Your task to perform on an android device: Go to Yahoo.com Image 0: 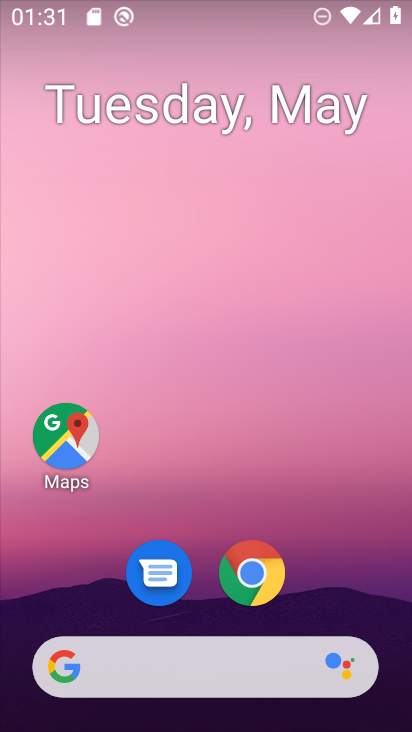
Step 0: click (246, 562)
Your task to perform on an android device: Go to Yahoo.com Image 1: 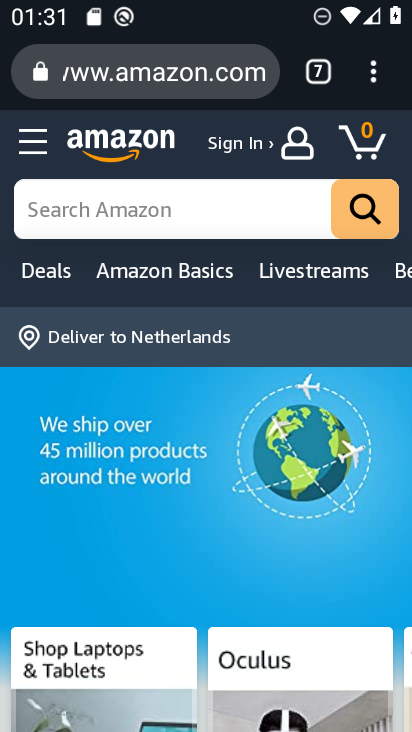
Step 1: click (325, 71)
Your task to perform on an android device: Go to Yahoo.com Image 2: 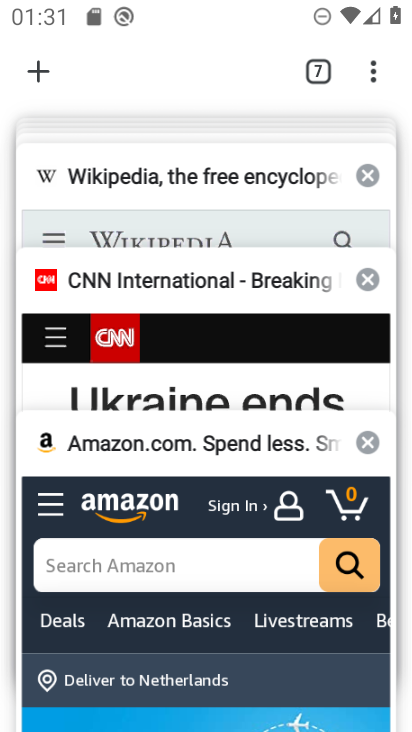
Step 2: drag from (210, 177) to (210, 643)
Your task to perform on an android device: Go to Yahoo.com Image 3: 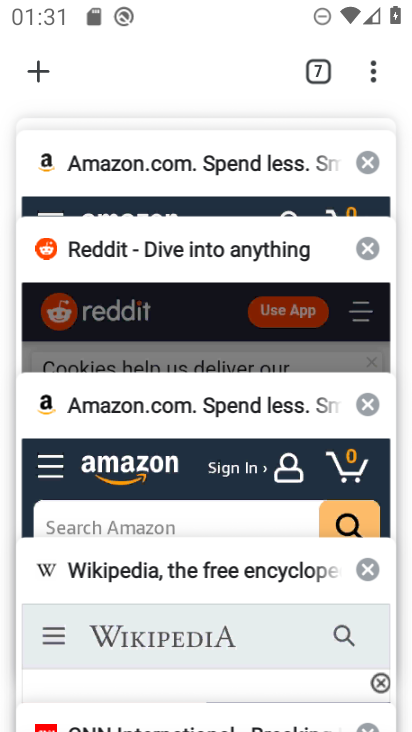
Step 3: click (45, 88)
Your task to perform on an android device: Go to Yahoo.com Image 4: 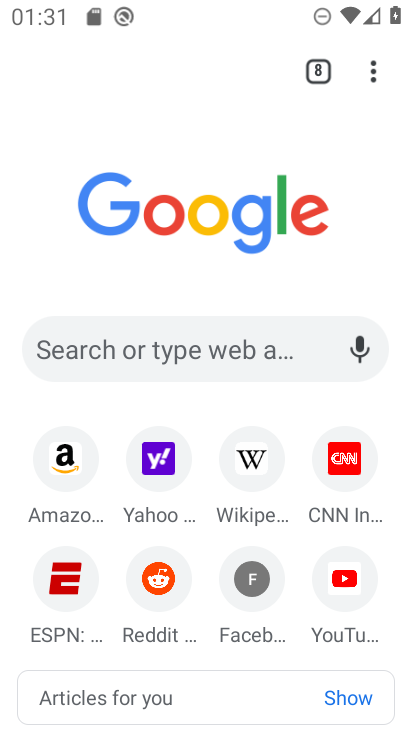
Step 4: click (173, 472)
Your task to perform on an android device: Go to Yahoo.com Image 5: 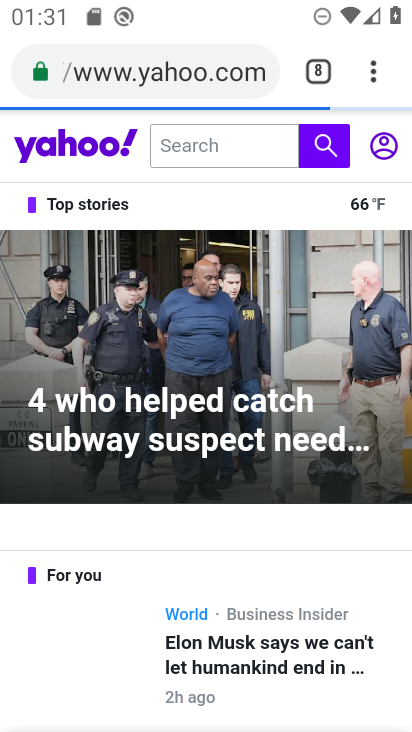
Step 5: task complete